Your task to perform on an android device: Open Youtube and go to the subscriptions tab Image 0: 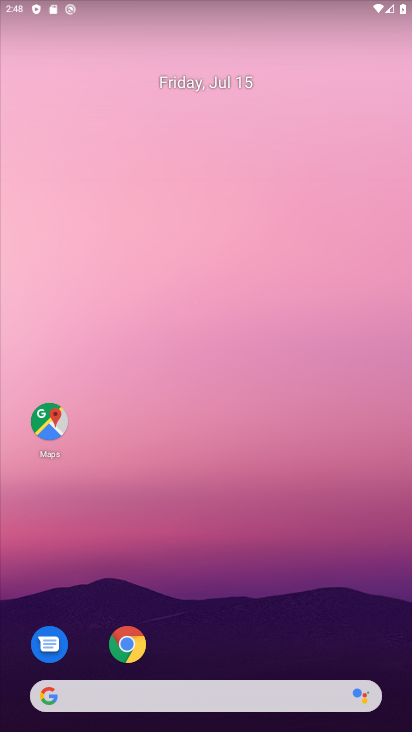
Step 0: drag from (190, 660) to (322, 6)
Your task to perform on an android device: Open Youtube and go to the subscriptions tab Image 1: 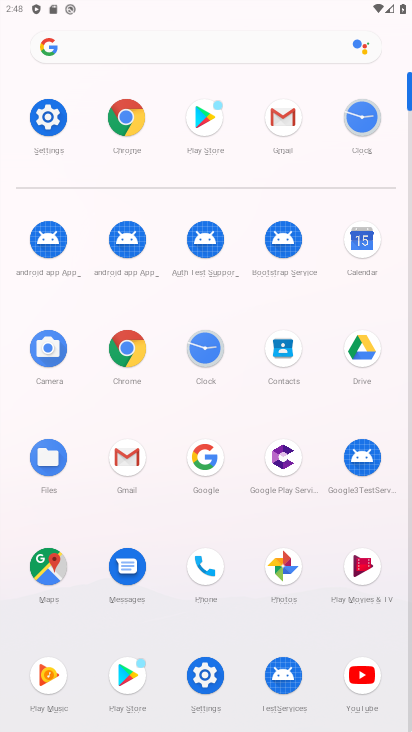
Step 1: click (351, 670)
Your task to perform on an android device: Open Youtube and go to the subscriptions tab Image 2: 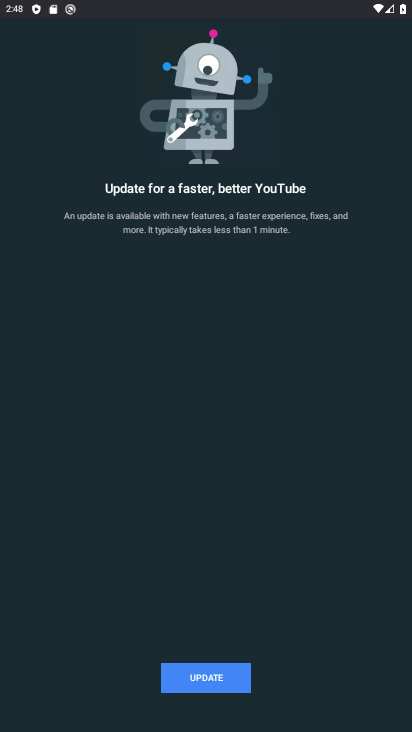
Step 2: task complete